Your task to perform on an android device: open a new tab in the chrome app Image 0: 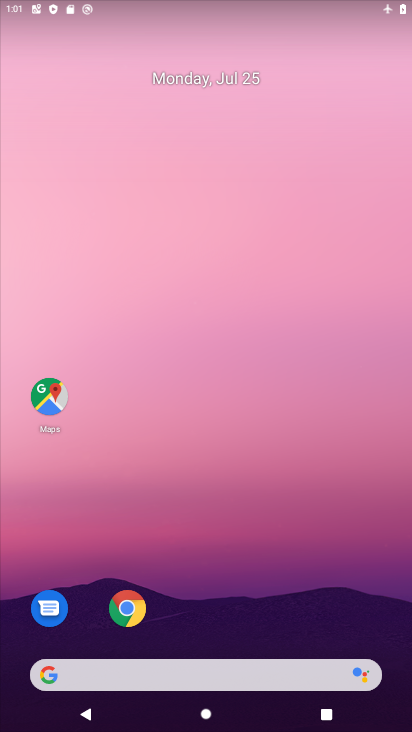
Step 0: click (122, 609)
Your task to perform on an android device: open a new tab in the chrome app Image 1: 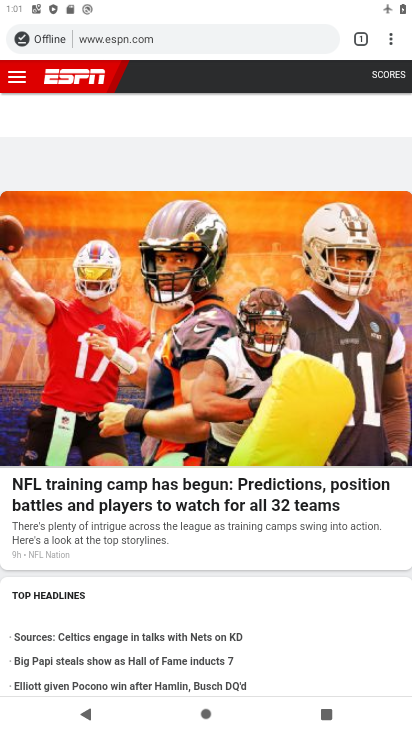
Step 1: task complete